Your task to perform on an android device: Open calendar and show me the third week of next month Image 0: 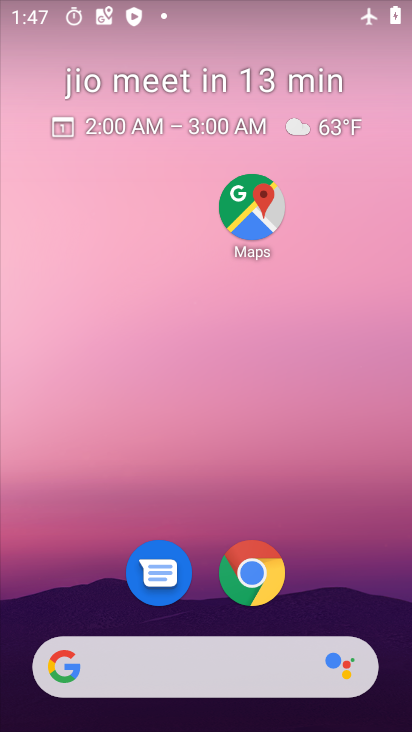
Step 0: drag from (198, 432) to (200, 25)
Your task to perform on an android device: Open calendar and show me the third week of next month Image 1: 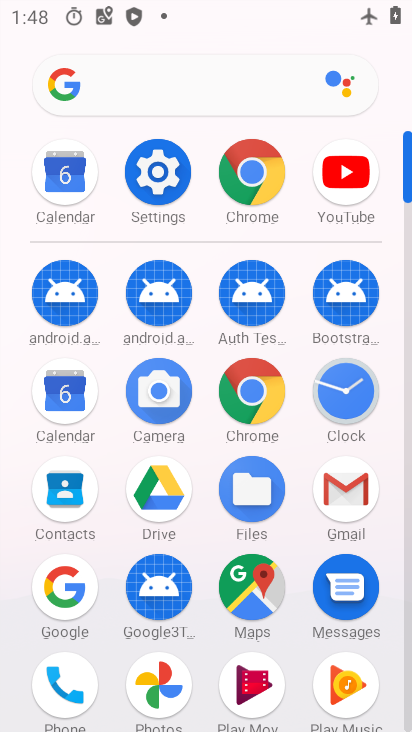
Step 1: click (64, 506)
Your task to perform on an android device: Open calendar and show me the third week of next month Image 2: 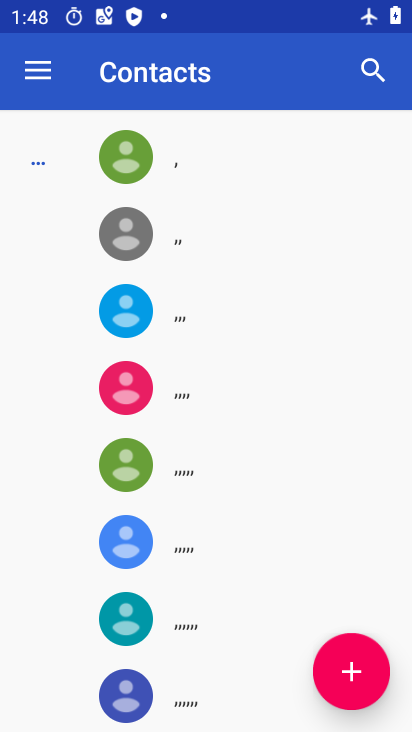
Step 2: press back button
Your task to perform on an android device: Open calendar and show me the third week of next month Image 3: 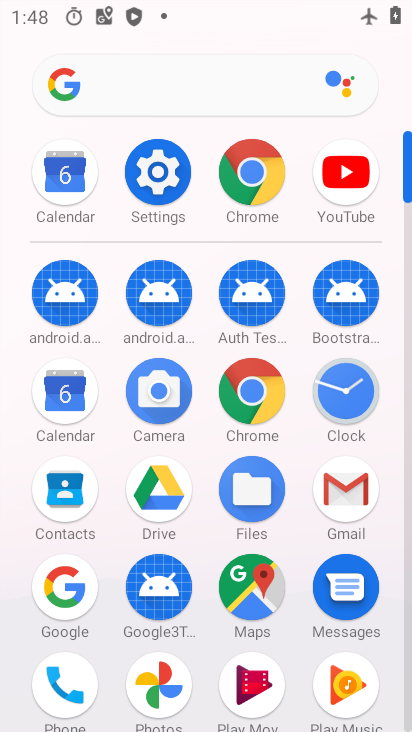
Step 3: click (79, 414)
Your task to perform on an android device: Open calendar and show me the third week of next month Image 4: 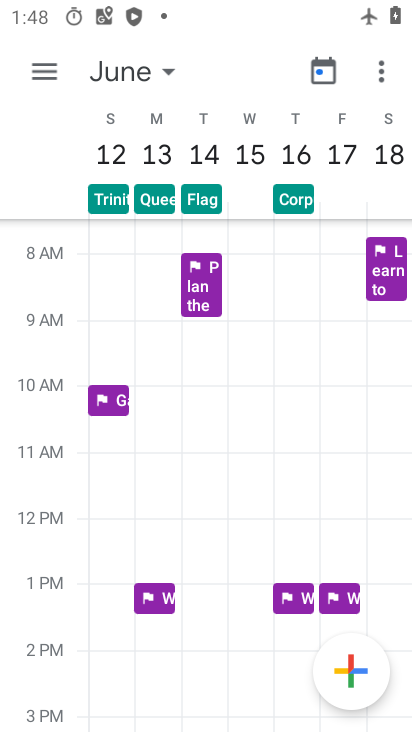
Step 4: click (127, 76)
Your task to perform on an android device: Open calendar and show me the third week of next month Image 5: 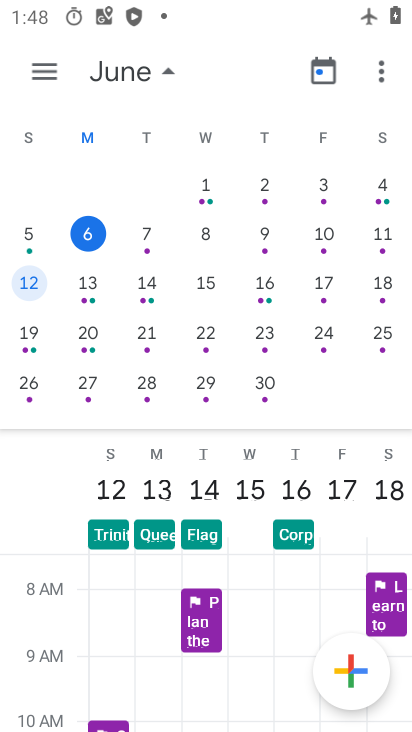
Step 5: drag from (338, 271) to (13, 259)
Your task to perform on an android device: Open calendar and show me the third week of next month Image 6: 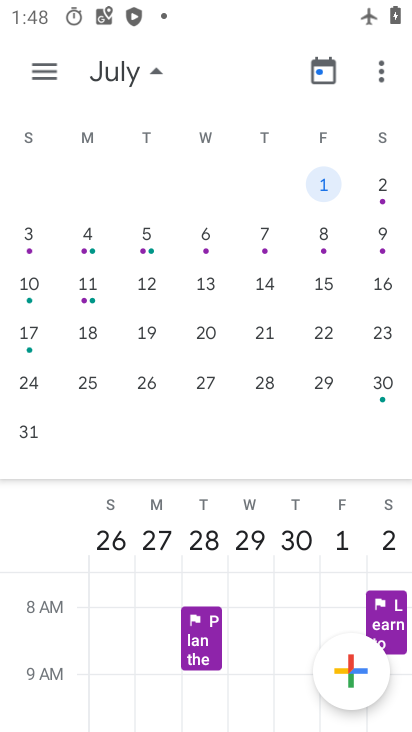
Step 6: click (27, 287)
Your task to perform on an android device: Open calendar and show me the third week of next month Image 7: 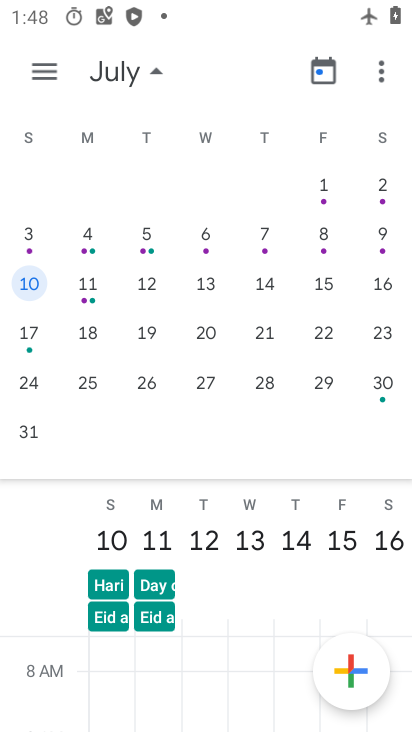
Step 7: click (151, 76)
Your task to perform on an android device: Open calendar and show me the third week of next month Image 8: 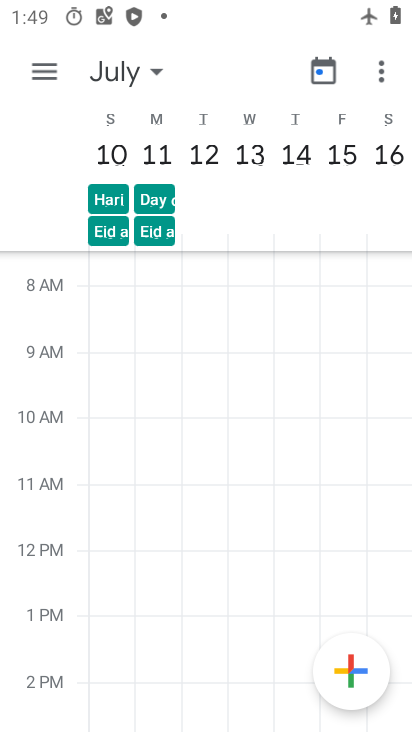
Step 8: task complete